Your task to perform on an android device: change timer sound Image 0: 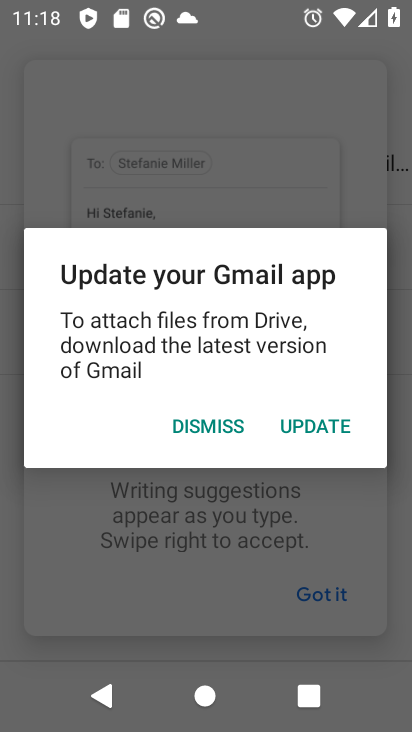
Step 0: press home button
Your task to perform on an android device: change timer sound Image 1: 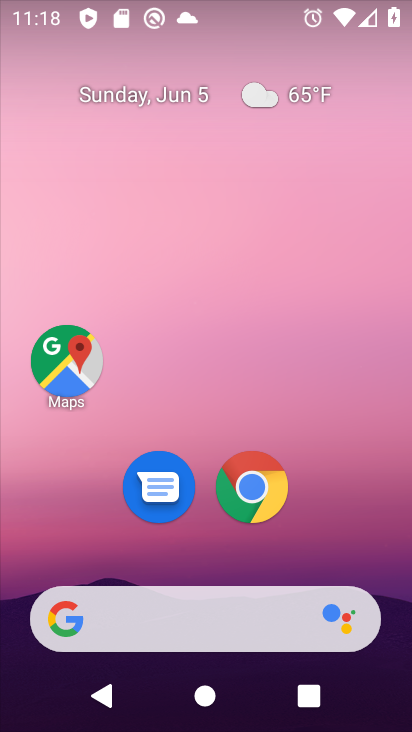
Step 1: drag from (342, 518) to (279, 150)
Your task to perform on an android device: change timer sound Image 2: 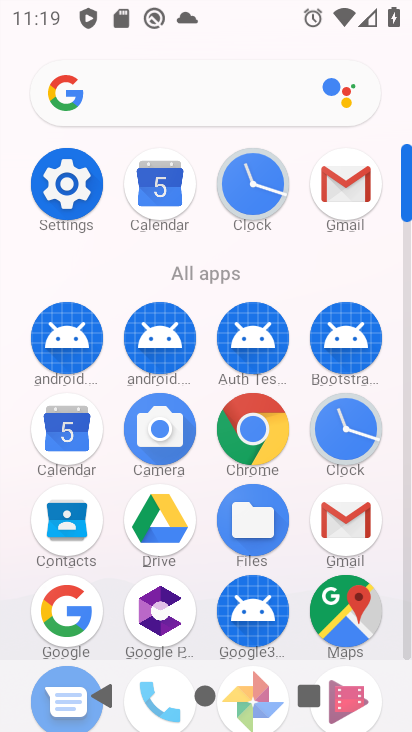
Step 2: click (253, 184)
Your task to perform on an android device: change timer sound Image 3: 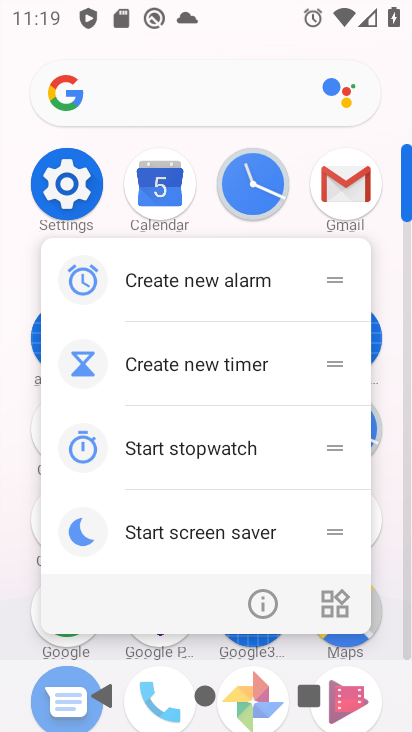
Step 3: click (253, 184)
Your task to perform on an android device: change timer sound Image 4: 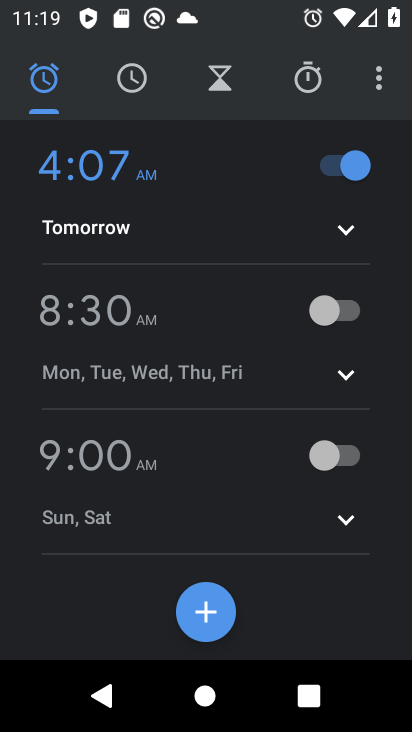
Step 4: click (380, 77)
Your task to perform on an android device: change timer sound Image 5: 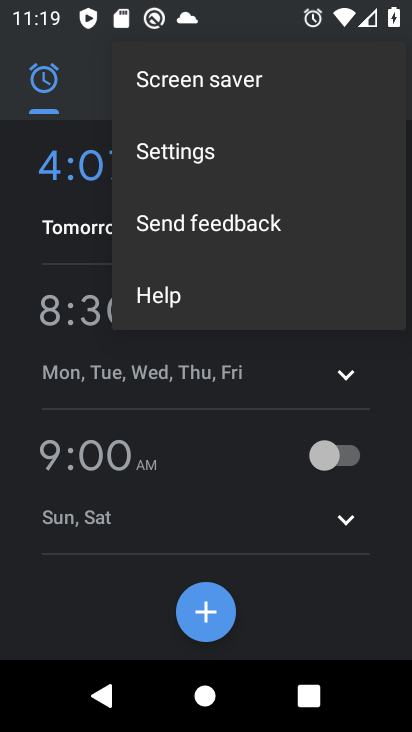
Step 5: click (191, 153)
Your task to perform on an android device: change timer sound Image 6: 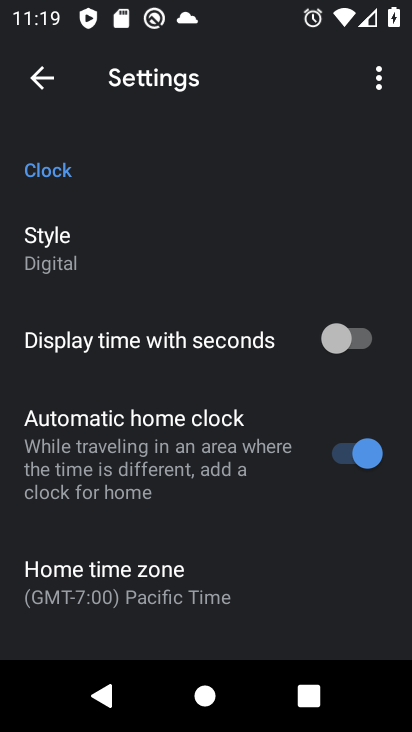
Step 6: drag from (139, 374) to (212, 262)
Your task to perform on an android device: change timer sound Image 7: 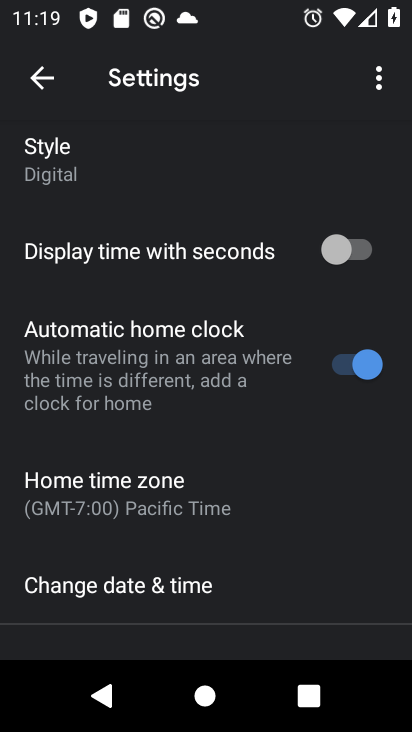
Step 7: drag from (156, 431) to (239, 299)
Your task to perform on an android device: change timer sound Image 8: 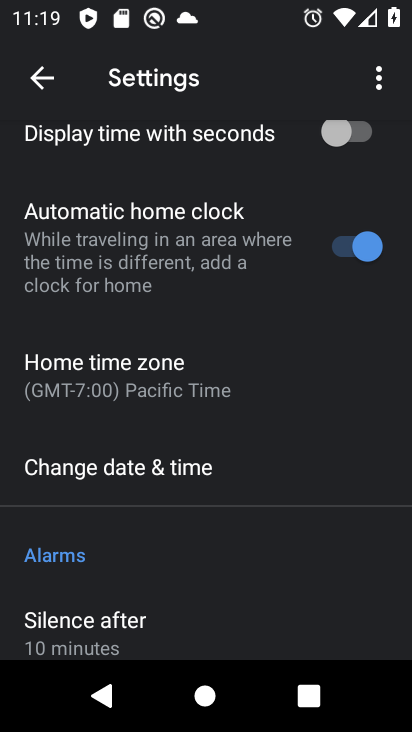
Step 8: drag from (131, 420) to (188, 280)
Your task to perform on an android device: change timer sound Image 9: 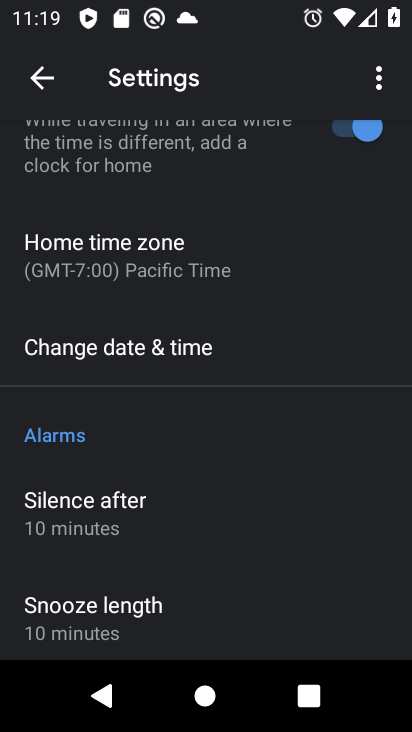
Step 9: drag from (122, 424) to (208, 317)
Your task to perform on an android device: change timer sound Image 10: 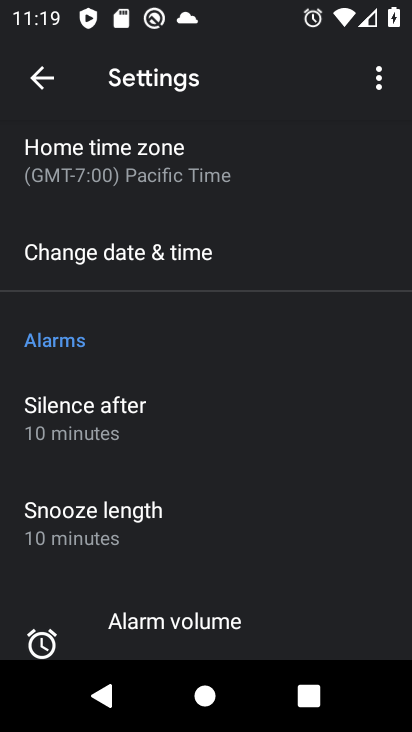
Step 10: drag from (103, 465) to (171, 354)
Your task to perform on an android device: change timer sound Image 11: 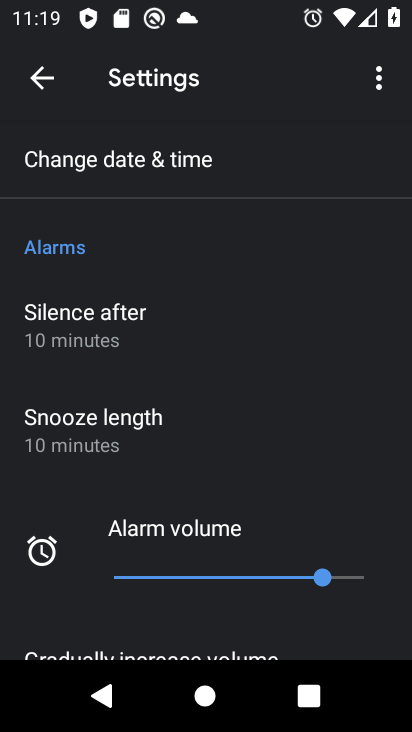
Step 11: drag from (145, 439) to (197, 347)
Your task to perform on an android device: change timer sound Image 12: 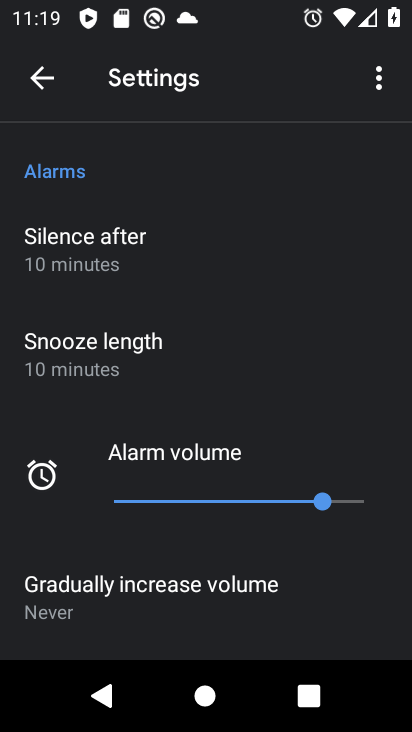
Step 12: drag from (119, 546) to (239, 377)
Your task to perform on an android device: change timer sound Image 13: 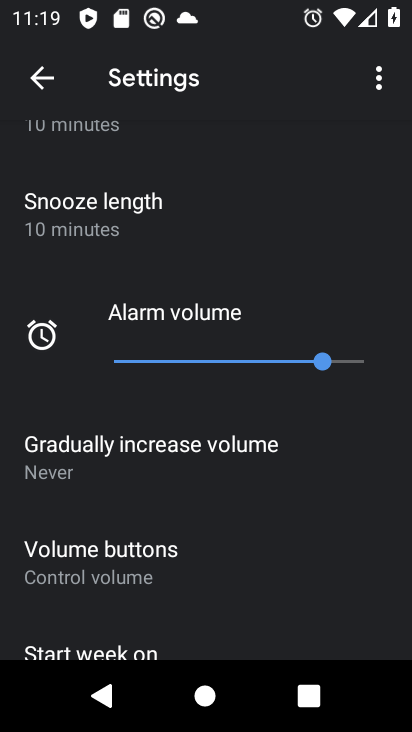
Step 13: drag from (137, 515) to (220, 384)
Your task to perform on an android device: change timer sound Image 14: 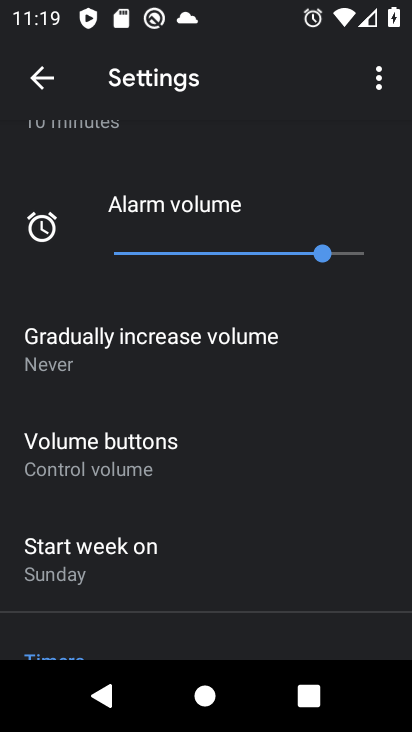
Step 14: drag from (101, 503) to (206, 364)
Your task to perform on an android device: change timer sound Image 15: 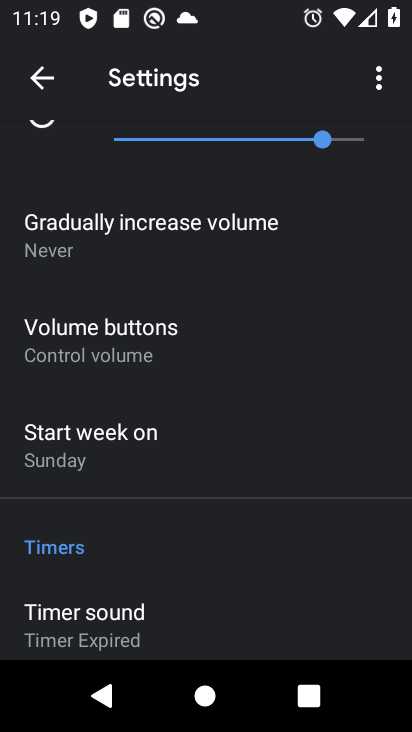
Step 15: drag from (122, 567) to (220, 419)
Your task to perform on an android device: change timer sound Image 16: 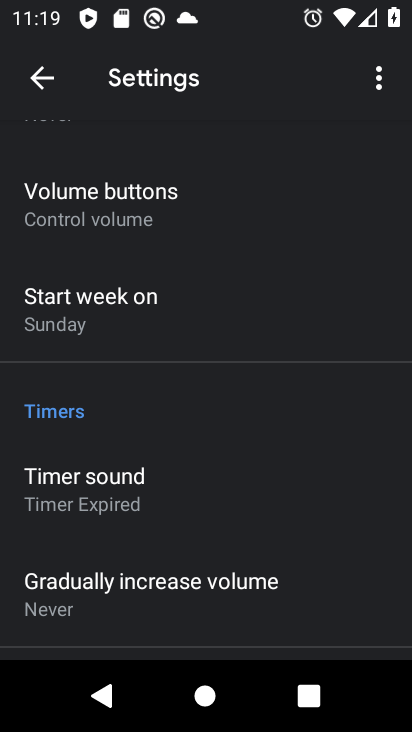
Step 16: click (158, 489)
Your task to perform on an android device: change timer sound Image 17: 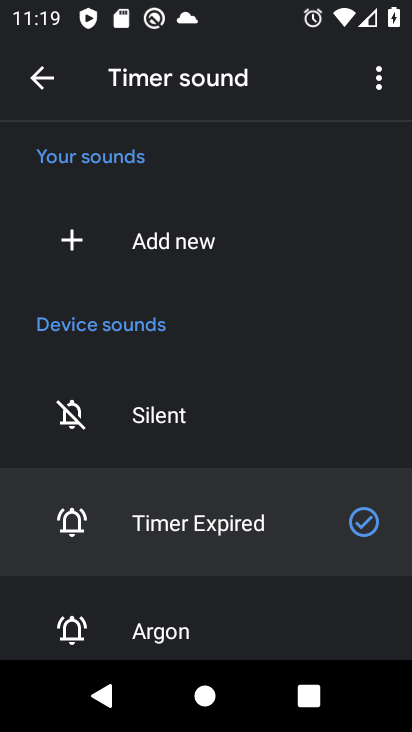
Step 17: drag from (211, 585) to (301, 329)
Your task to perform on an android device: change timer sound Image 18: 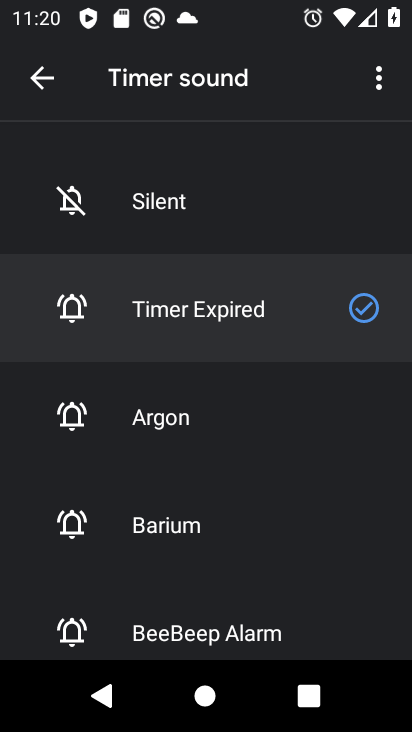
Step 18: drag from (241, 552) to (336, 321)
Your task to perform on an android device: change timer sound Image 19: 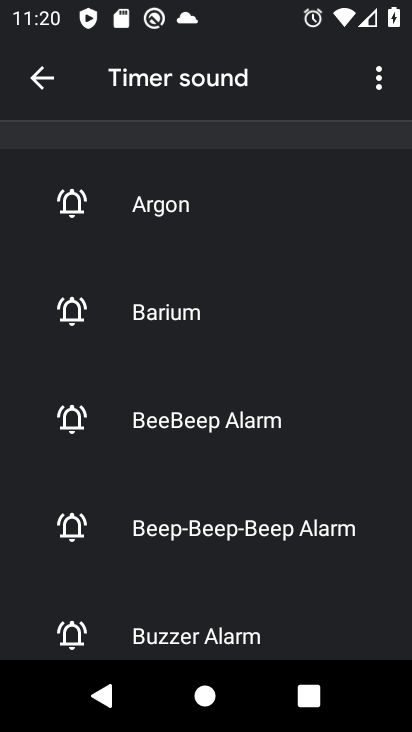
Step 19: drag from (244, 463) to (312, 278)
Your task to perform on an android device: change timer sound Image 20: 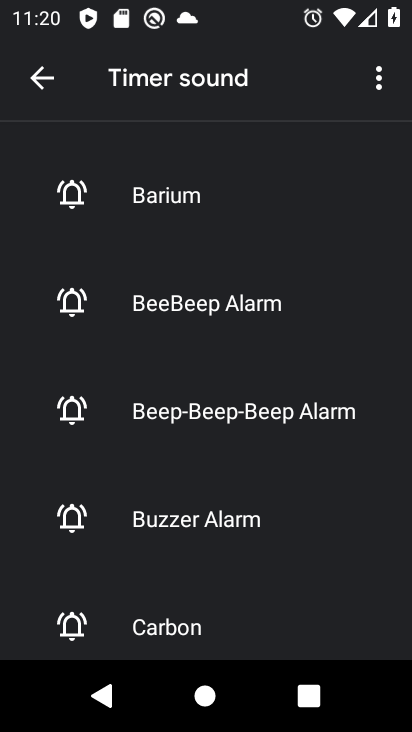
Step 20: click (237, 517)
Your task to perform on an android device: change timer sound Image 21: 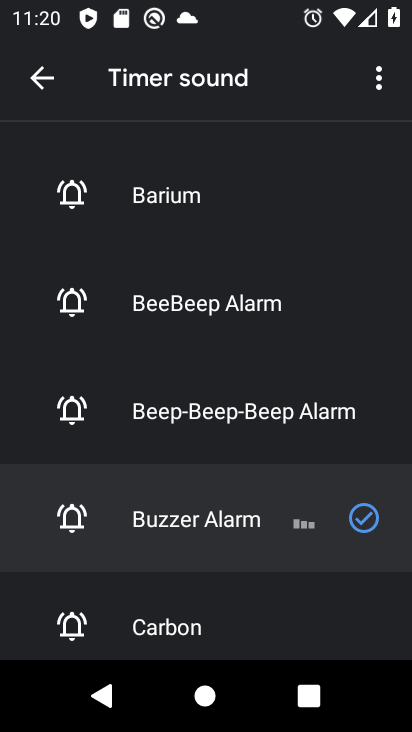
Step 21: task complete